Your task to perform on an android device: Open the map Image 0: 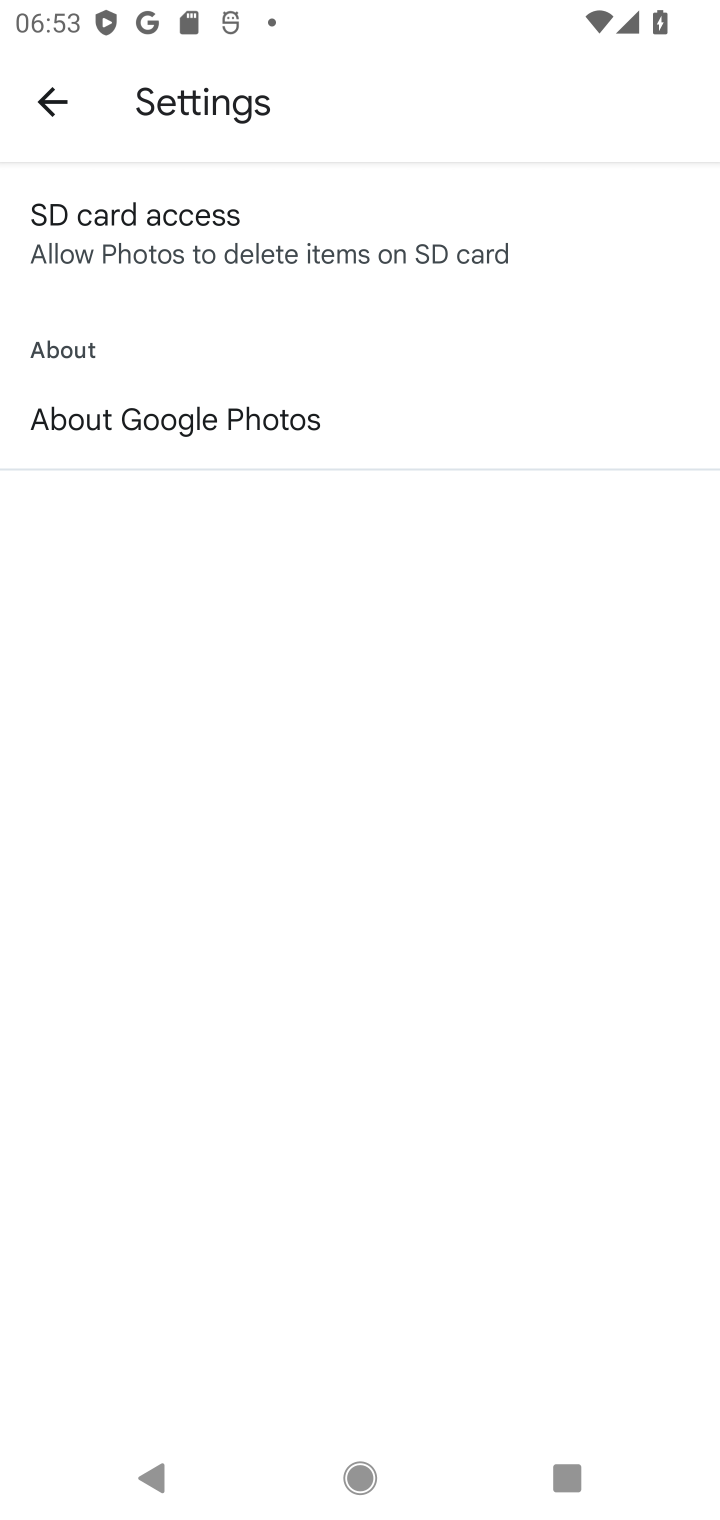
Step 0: press home button
Your task to perform on an android device: Open the map Image 1: 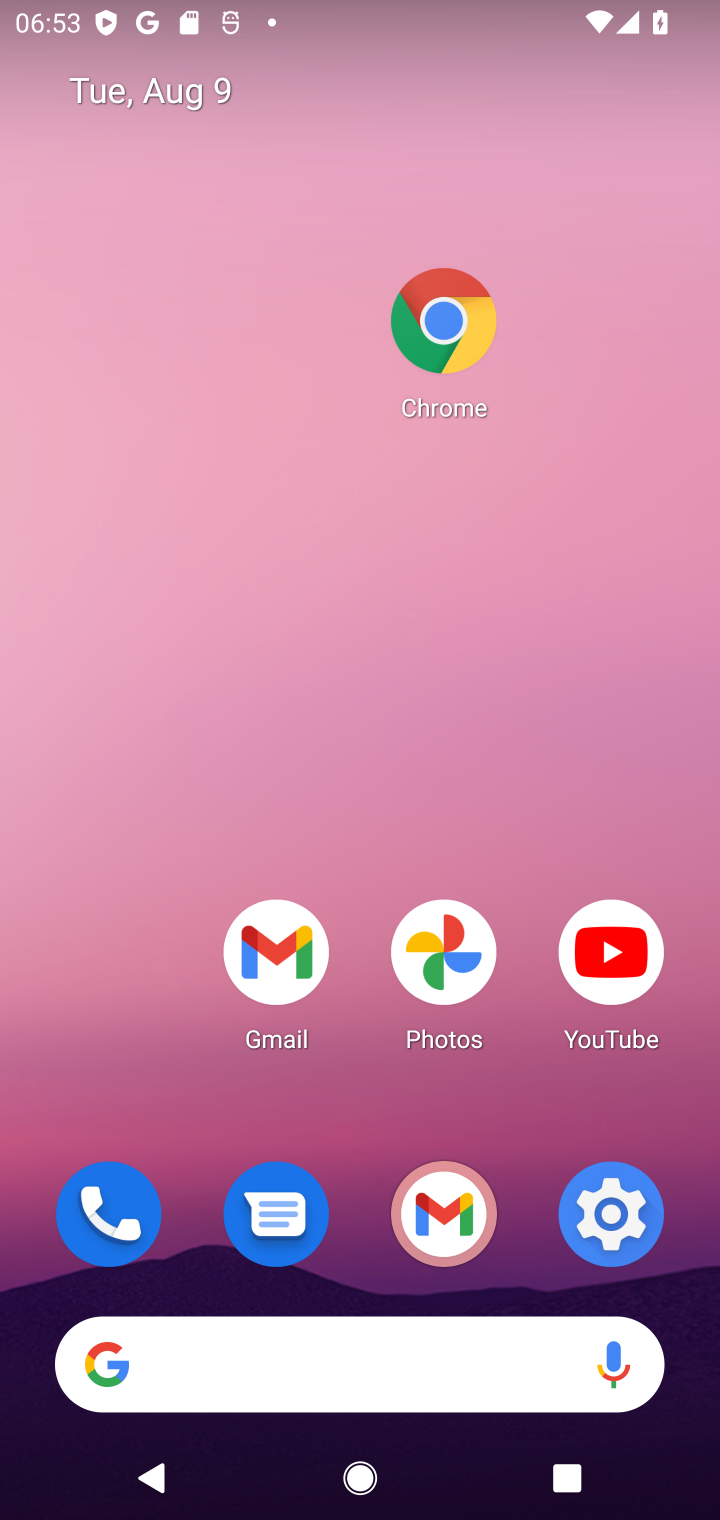
Step 1: drag from (478, 1421) to (416, 516)
Your task to perform on an android device: Open the map Image 2: 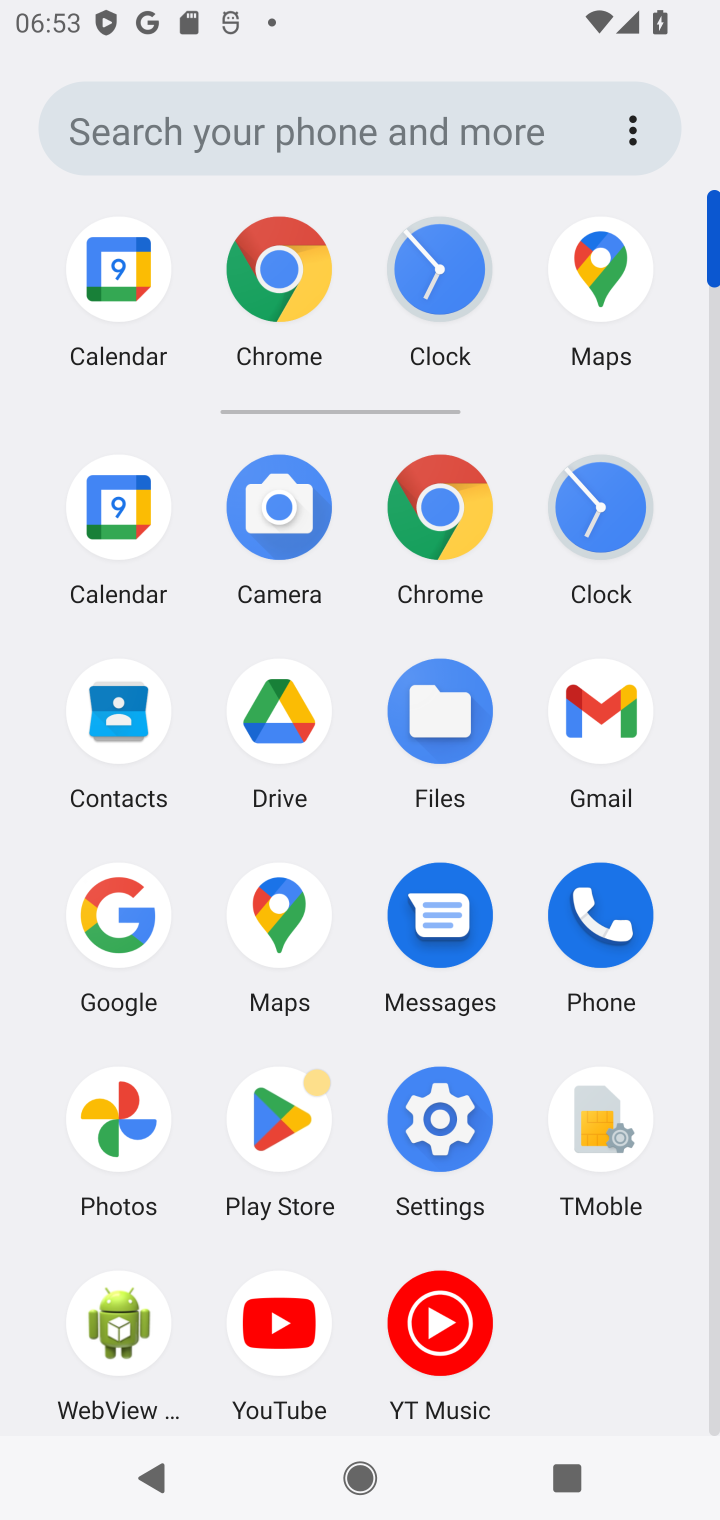
Step 2: click (285, 918)
Your task to perform on an android device: Open the map Image 3: 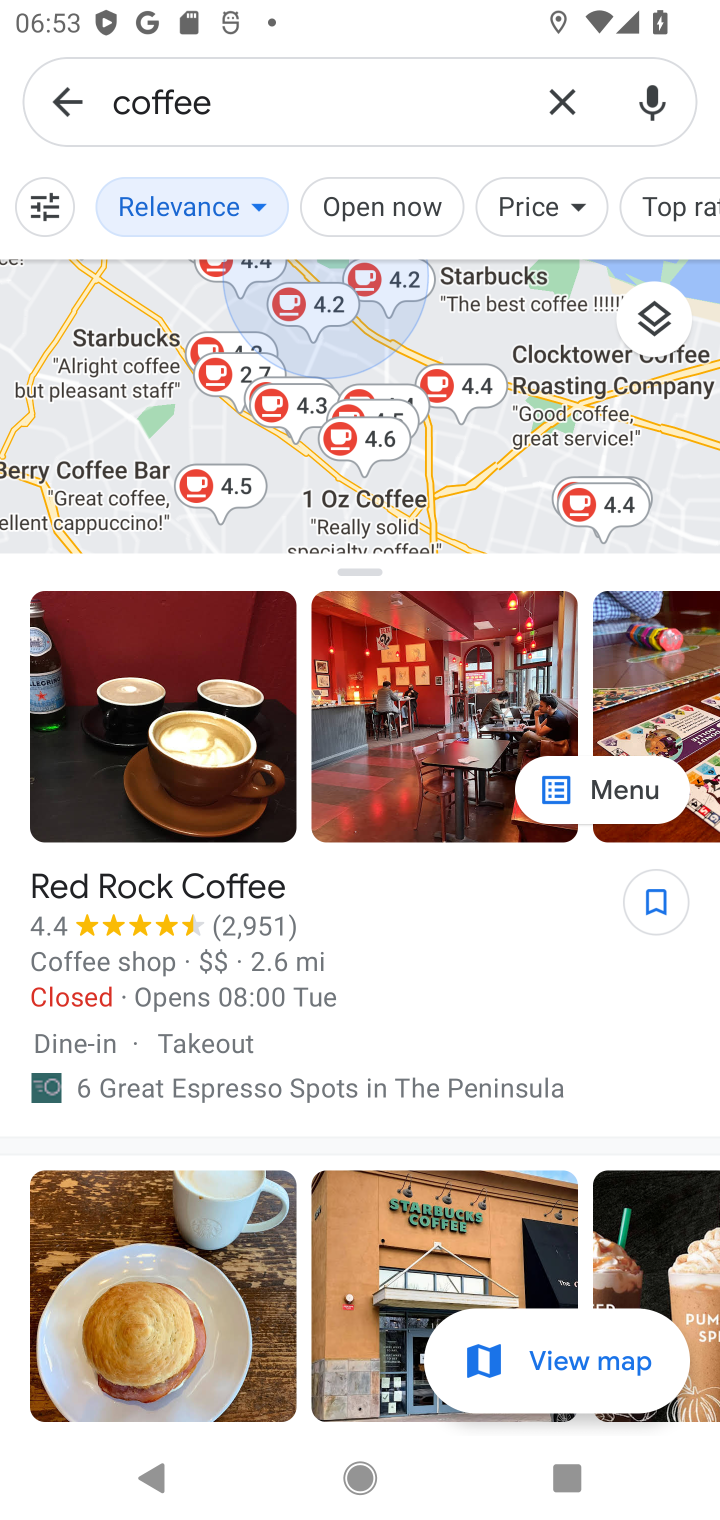
Step 3: click (56, 117)
Your task to perform on an android device: Open the map Image 4: 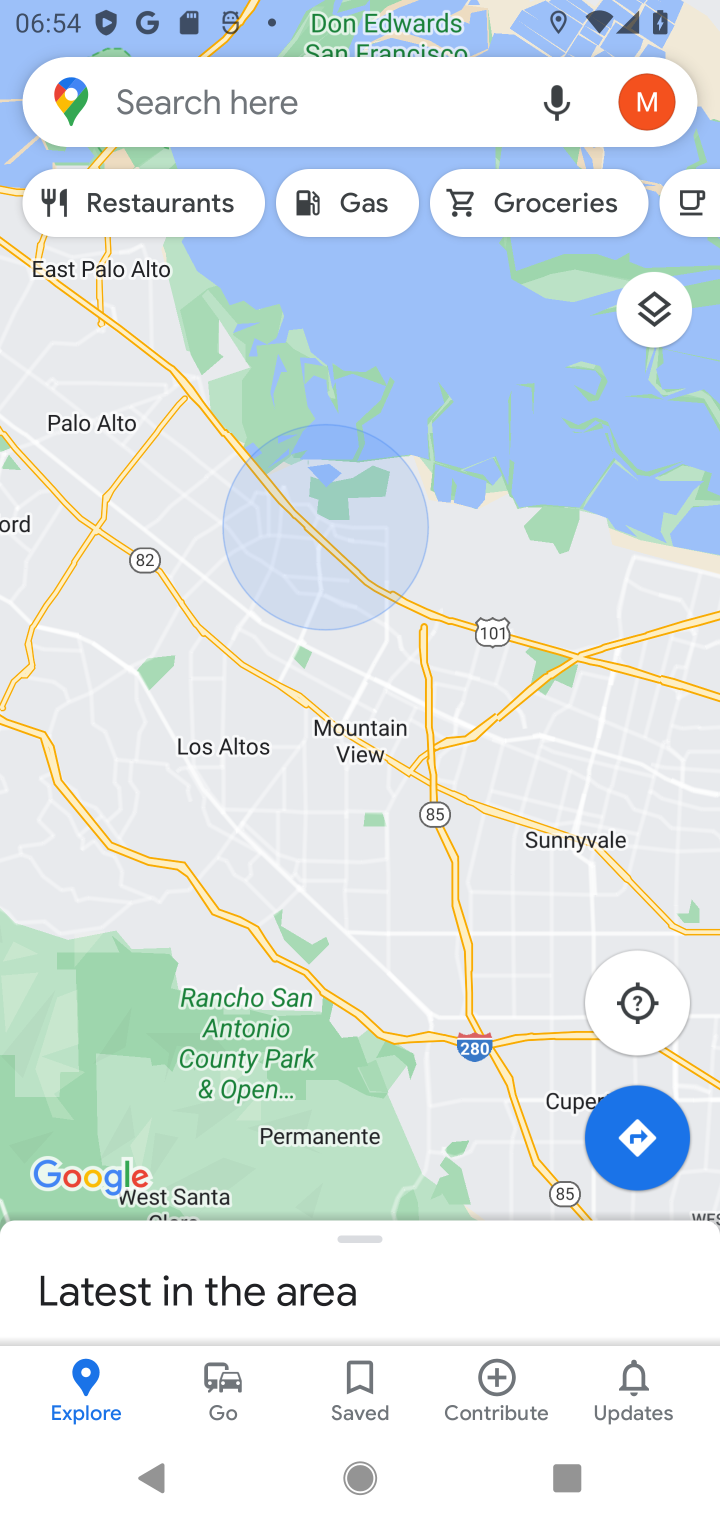
Step 4: task complete